Your task to perform on an android device: toggle javascript in the chrome app Image 0: 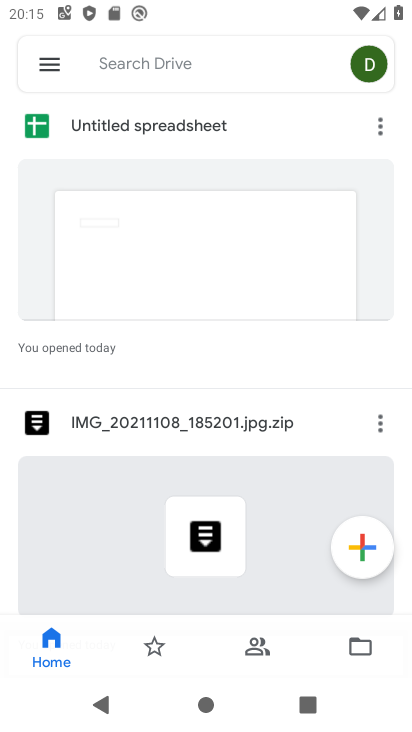
Step 0: press home button
Your task to perform on an android device: toggle javascript in the chrome app Image 1: 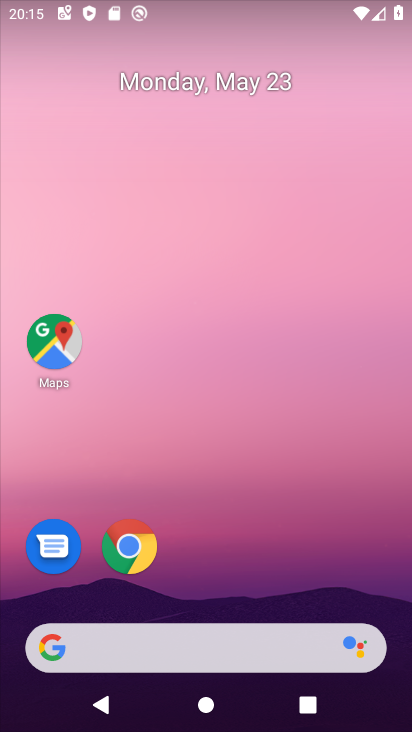
Step 1: drag from (379, 590) to (363, 165)
Your task to perform on an android device: toggle javascript in the chrome app Image 2: 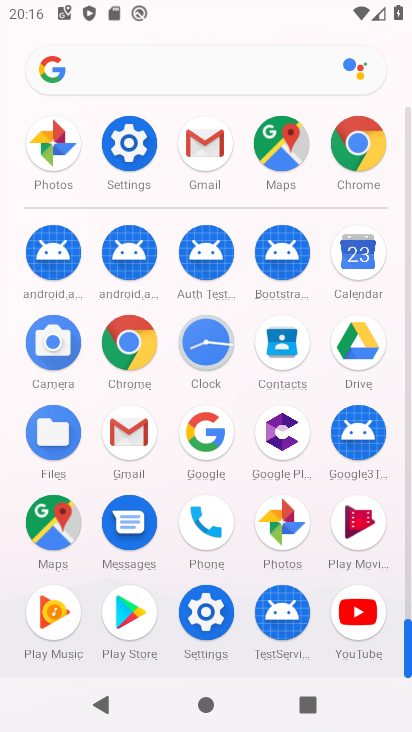
Step 2: click (132, 346)
Your task to perform on an android device: toggle javascript in the chrome app Image 3: 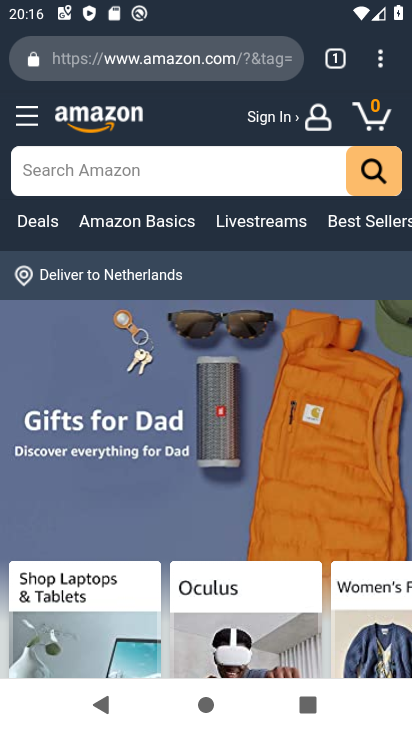
Step 3: click (381, 70)
Your task to perform on an android device: toggle javascript in the chrome app Image 4: 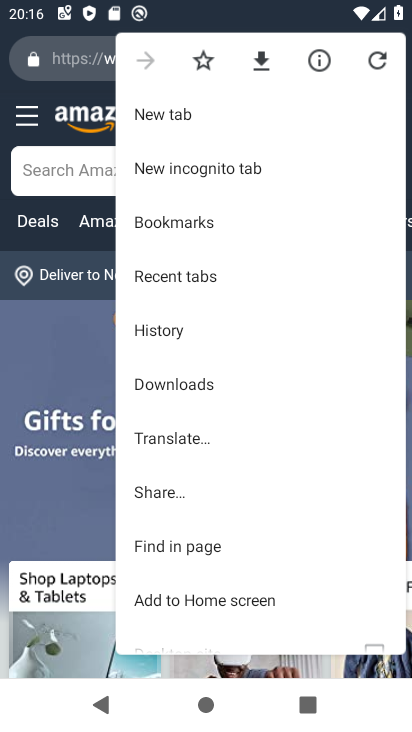
Step 4: drag from (327, 513) to (330, 433)
Your task to perform on an android device: toggle javascript in the chrome app Image 5: 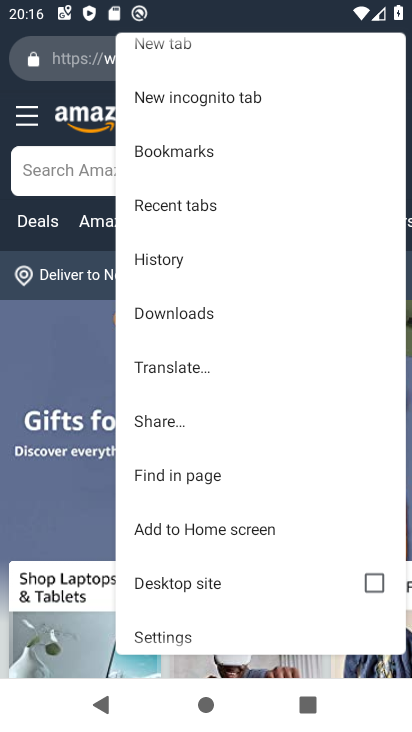
Step 5: drag from (302, 564) to (318, 450)
Your task to perform on an android device: toggle javascript in the chrome app Image 6: 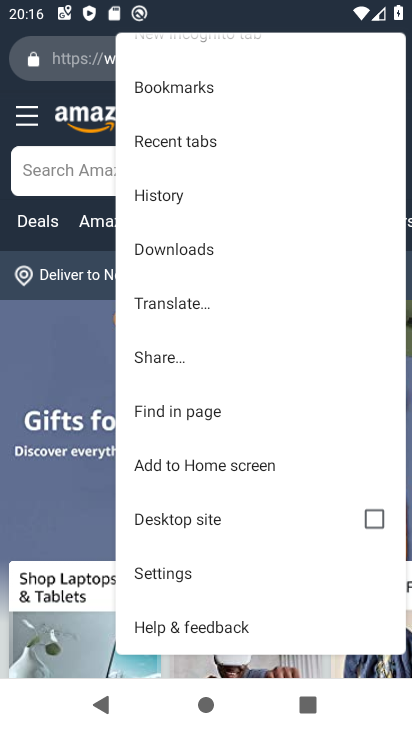
Step 6: click (193, 580)
Your task to perform on an android device: toggle javascript in the chrome app Image 7: 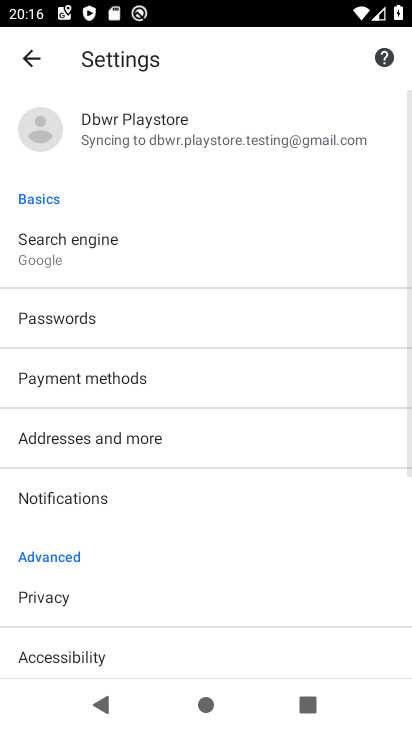
Step 7: drag from (278, 555) to (286, 464)
Your task to perform on an android device: toggle javascript in the chrome app Image 8: 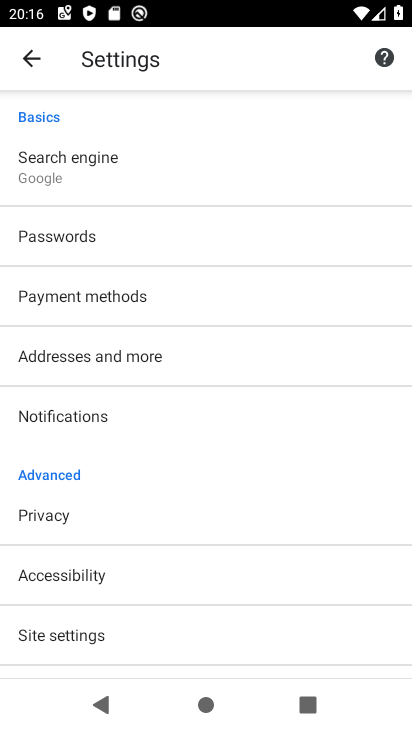
Step 8: drag from (292, 606) to (302, 523)
Your task to perform on an android device: toggle javascript in the chrome app Image 9: 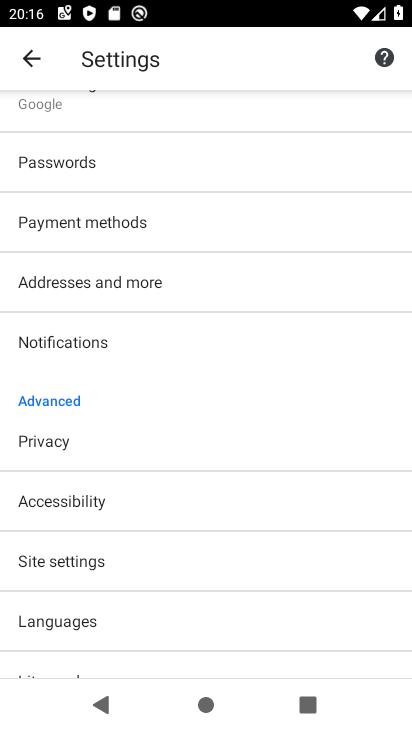
Step 9: drag from (298, 625) to (312, 534)
Your task to perform on an android device: toggle javascript in the chrome app Image 10: 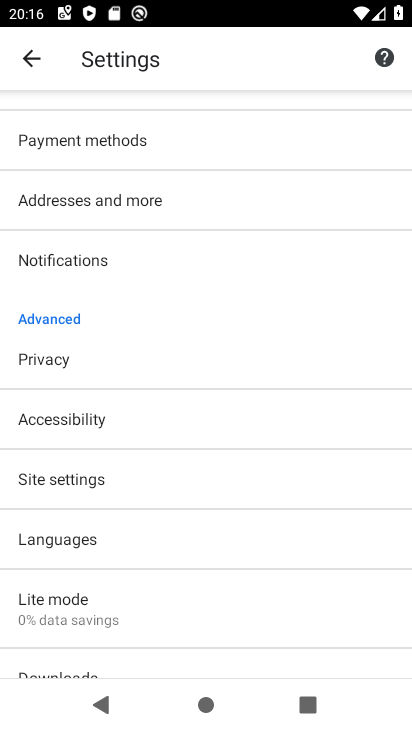
Step 10: drag from (306, 635) to (315, 554)
Your task to perform on an android device: toggle javascript in the chrome app Image 11: 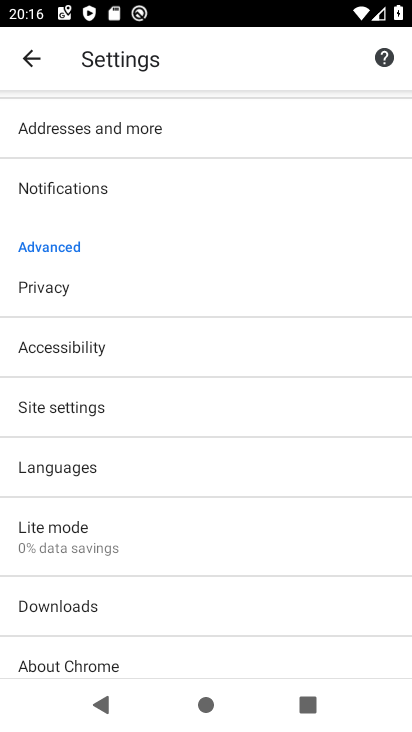
Step 11: drag from (316, 607) to (326, 514)
Your task to perform on an android device: toggle javascript in the chrome app Image 12: 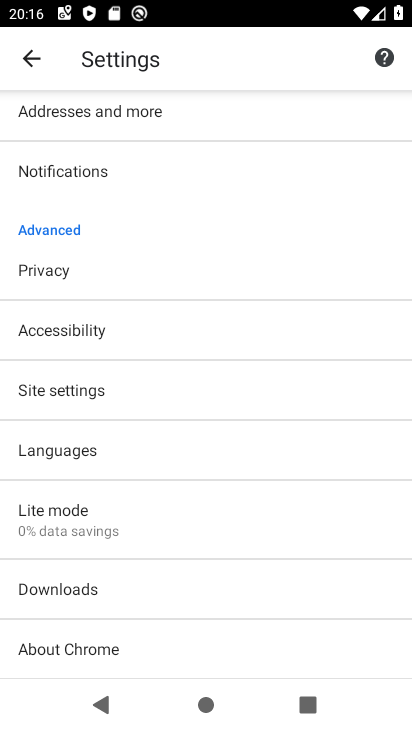
Step 12: drag from (322, 382) to (318, 467)
Your task to perform on an android device: toggle javascript in the chrome app Image 13: 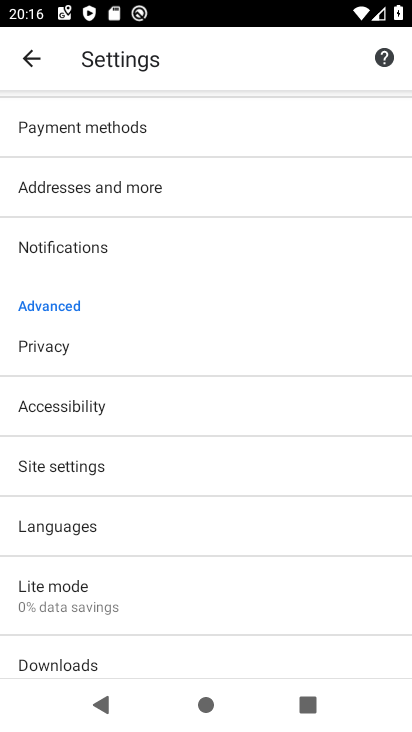
Step 13: drag from (317, 334) to (320, 428)
Your task to perform on an android device: toggle javascript in the chrome app Image 14: 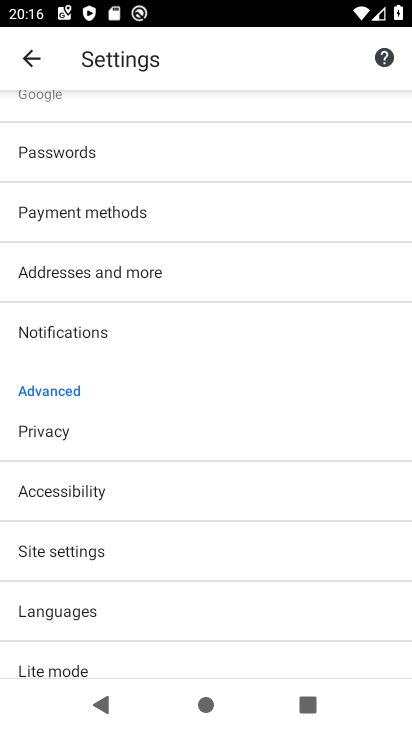
Step 14: drag from (314, 356) to (308, 442)
Your task to perform on an android device: toggle javascript in the chrome app Image 15: 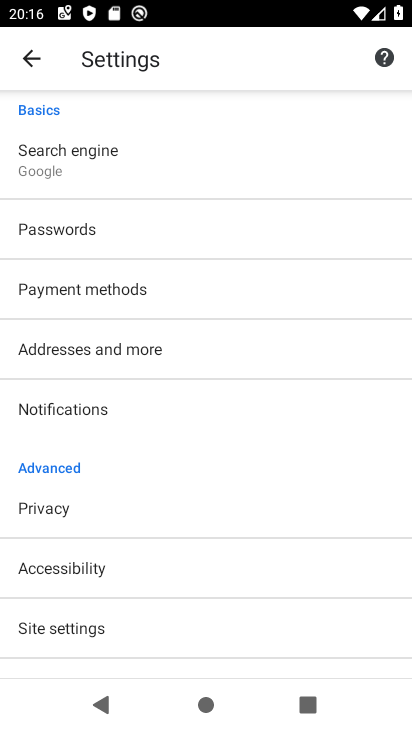
Step 15: drag from (267, 565) to (280, 469)
Your task to perform on an android device: toggle javascript in the chrome app Image 16: 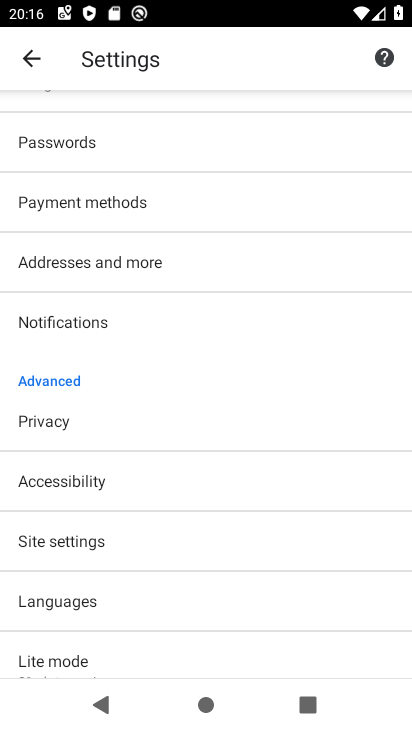
Step 16: click (268, 547)
Your task to perform on an android device: toggle javascript in the chrome app Image 17: 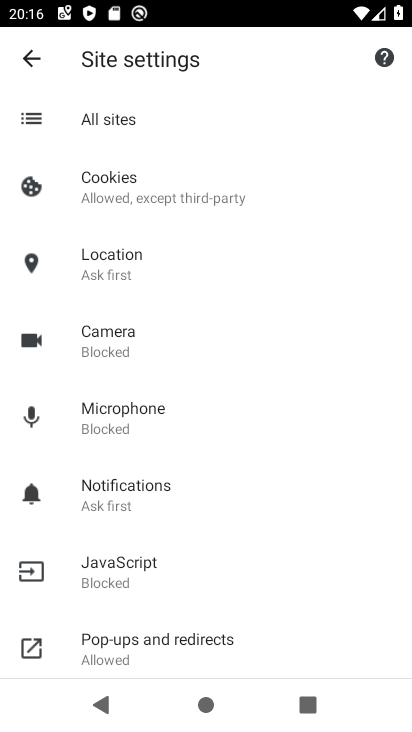
Step 17: drag from (330, 515) to (333, 465)
Your task to perform on an android device: toggle javascript in the chrome app Image 18: 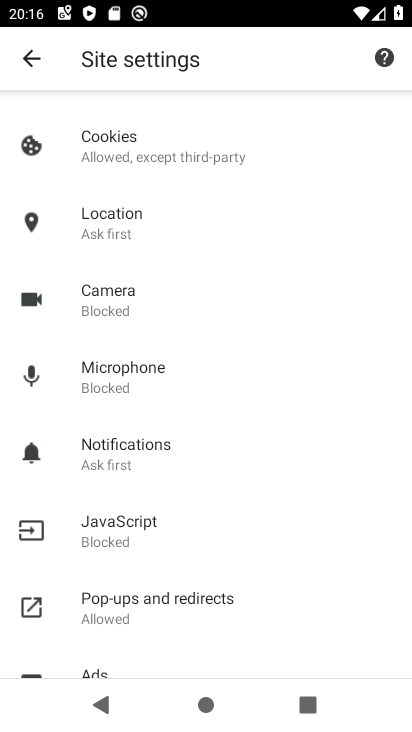
Step 18: drag from (309, 565) to (318, 485)
Your task to perform on an android device: toggle javascript in the chrome app Image 19: 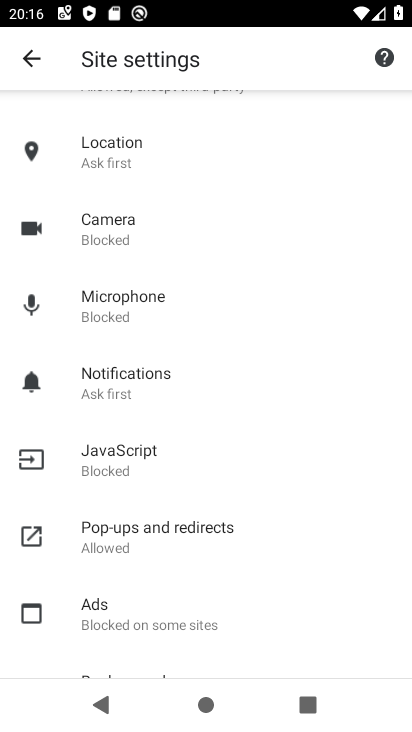
Step 19: drag from (316, 603) to (305, 525)
Your task to perform on an android device: toggle javascript in the chrome app Image 20: 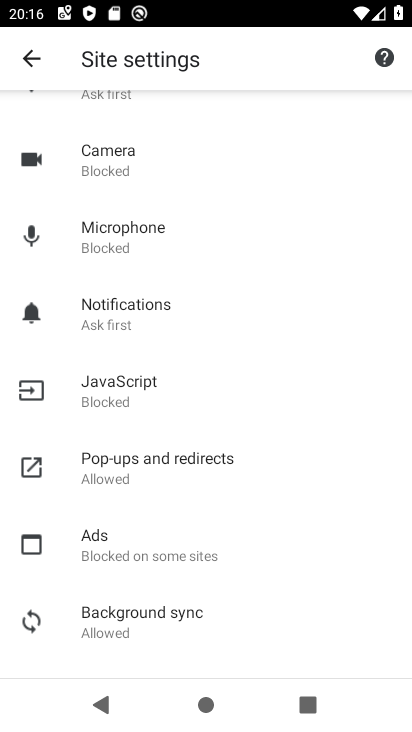
Step 20: click (109, 394)
Your task to perform on an android device: toggle javascript in the chrome app Image 21: 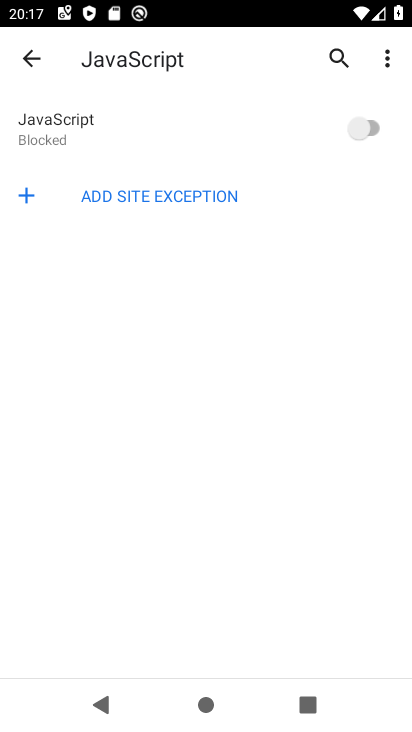
Step 21: click (353, 133)
Your task to perform on an android device: toggle javascript in the chrome app Image 22: 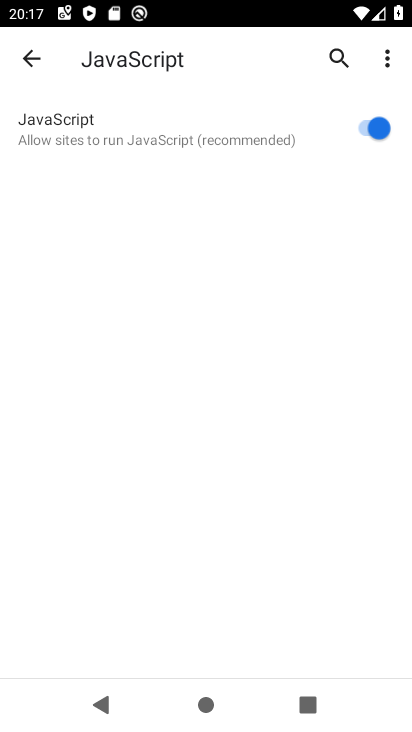
Step 22: task complete